Your task to perform on an android device: open a bookmark in the chrome app Image 0: 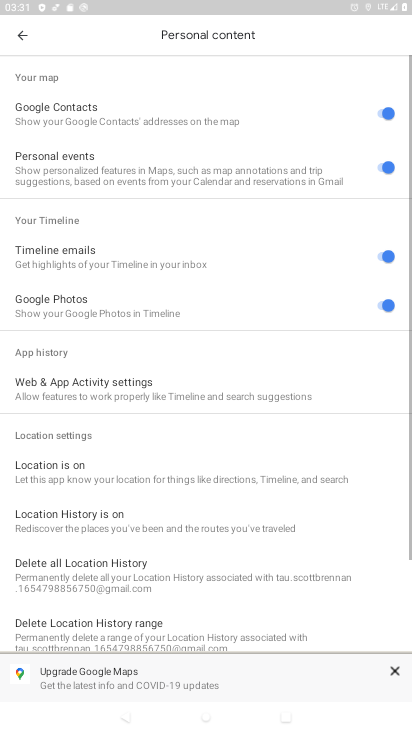
Step 0: press home button
Your task to perform on an android device: open a bookmark in the chrome app Image 1: 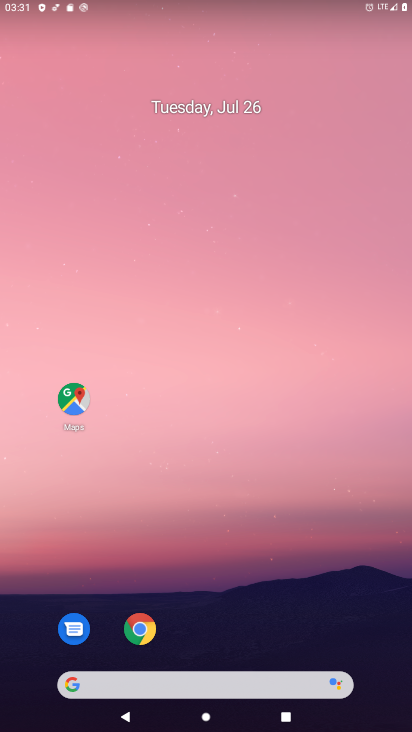
Step 1: drag from (314, 627) to (339, 94)
Your task to perform on an android device: open a bookmark in the chrome app Image 2: 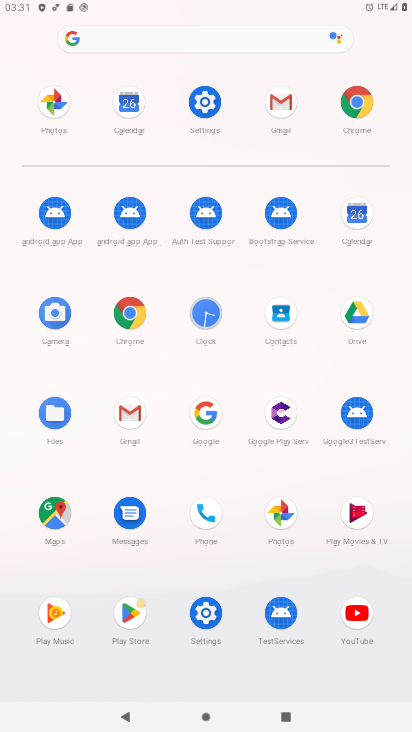
Step 2: click (200, 302)
Your task to perform on an android device: open a bookmark in the chrome app Image 3: 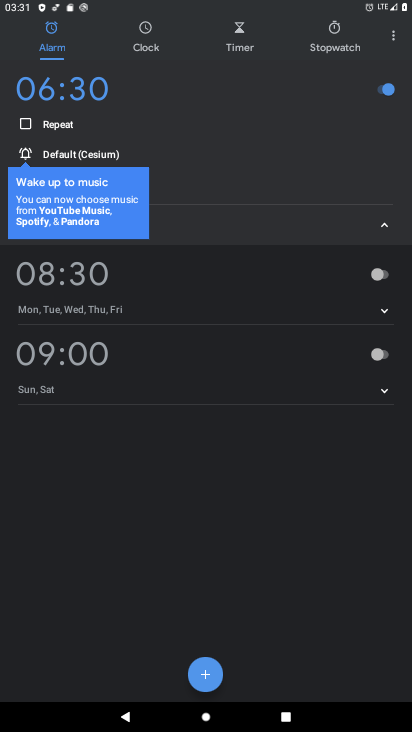
Step 3: press home button
Your task to perform on an android device: open a bookmark in the chrome app Image 4: 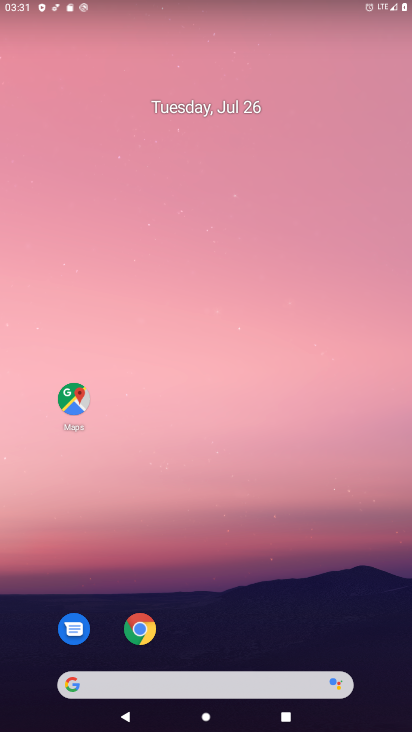
Step 4: click (142, 631)
Your task to perform on an android device: open a bookmark in the chrome app Image 5: 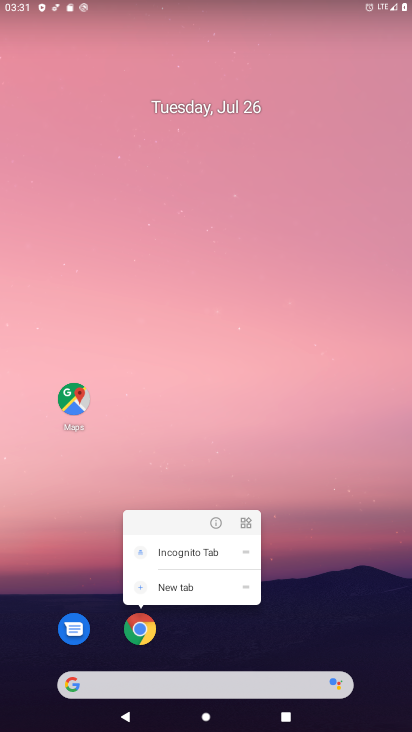
Step 5: click (140, 628)
Your task to perform on an android device: open a bookmark in the chrome app Image 6: 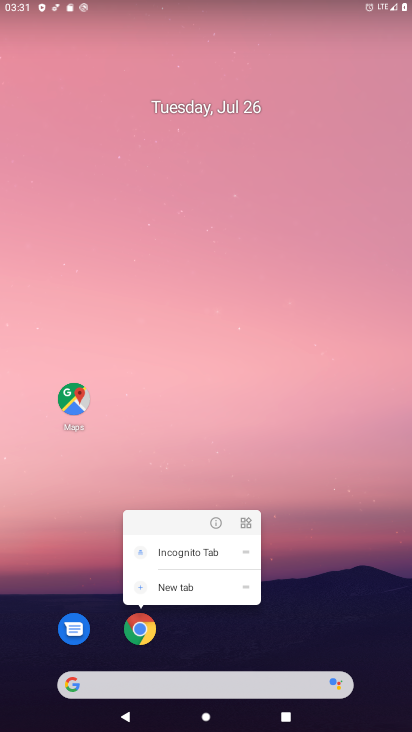
Step 6: click (140, 628)
Your task to perform on an android device: open a bookmark in the chrome app Image 7: 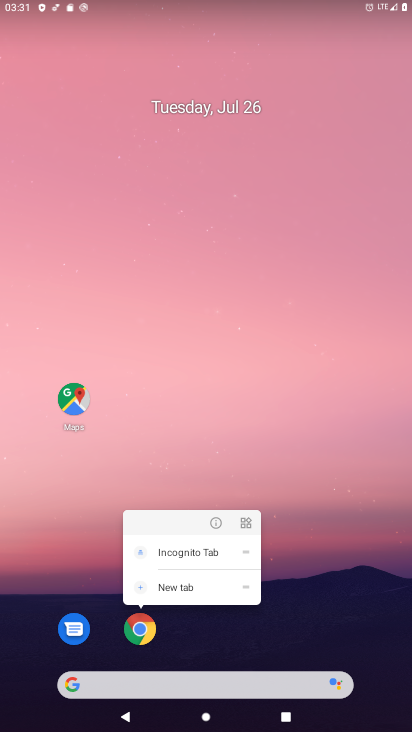
Step 7: click (140, 628)
Your task to perform on an android device: open a bookmark in the chrome app Image 8: 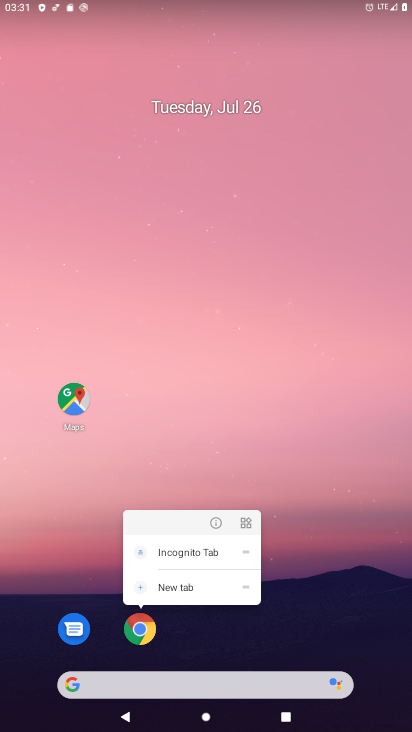
Step 8: click (140, 628)
Your task to perform on an android device: open a bookmark in the chrome app Image 9: 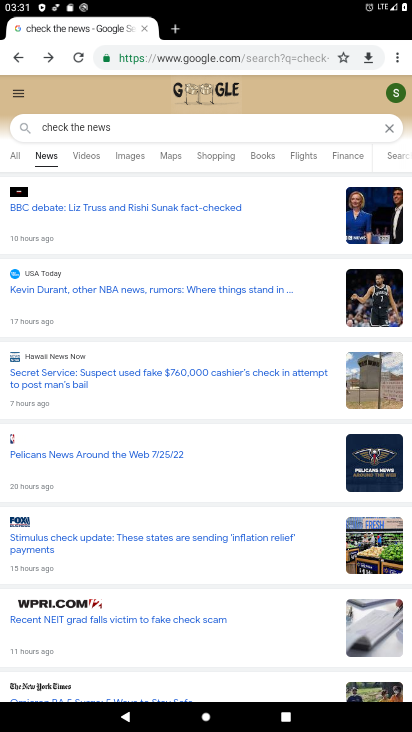
Step 9: task complete